Your task to perform on an android device: Go to display settings Image 0: 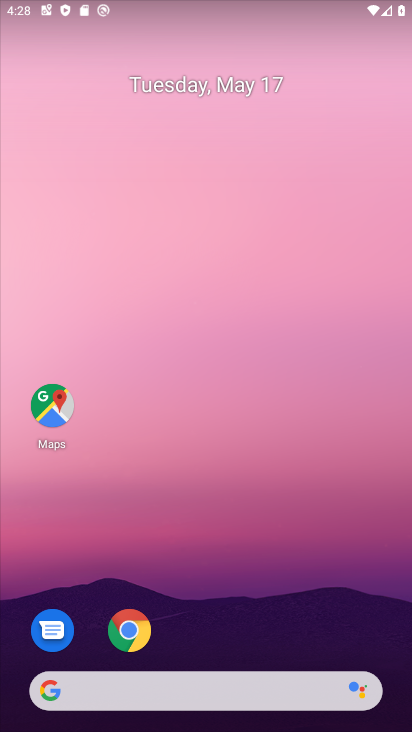
Step 0: drag from (181, 638) to (164, 151)
Your task to perform on an android device: Go to display settings Image 1: 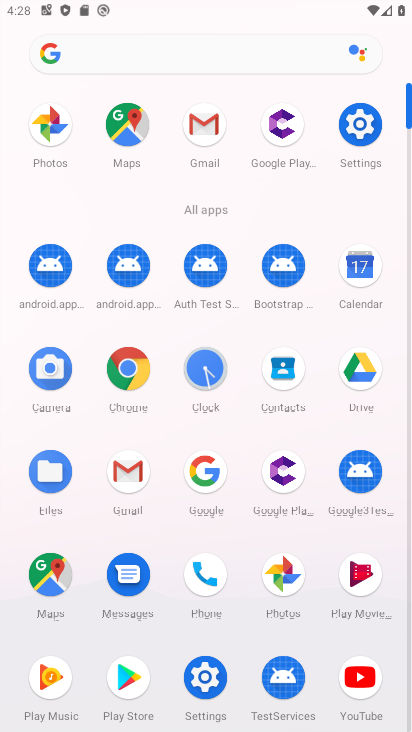
Step 1: click (367, 118)
Your task to perform on an android device: Go to display settings Image 2: 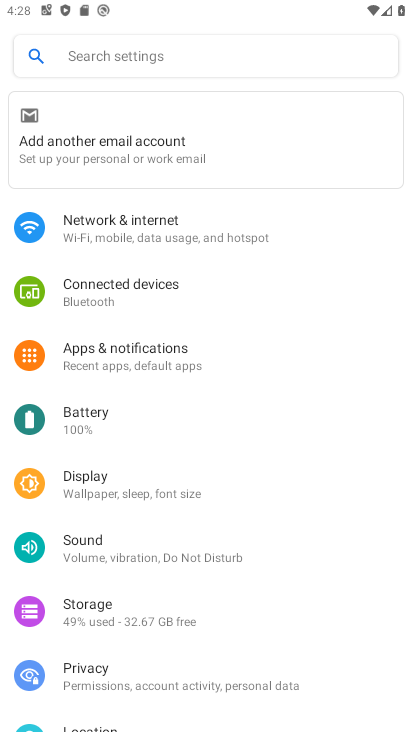
Step 2: click (89, 491)
Your task to perform on an android device: Go to display settings Image 3: 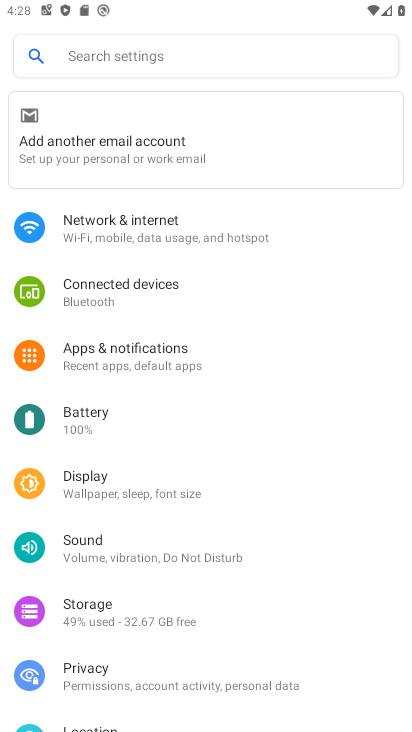
Step 3: click (88, 476)
Your task to perform on an android device: Go to display settings Image 4: 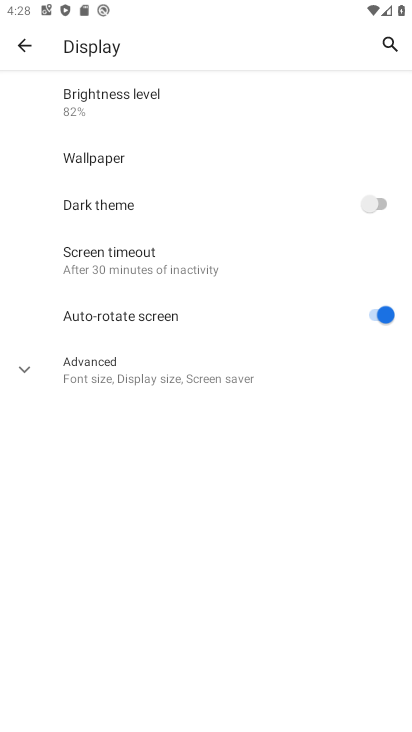
Step 4: task complete